Your task to perform on an android device: Open Android settings Image 0: 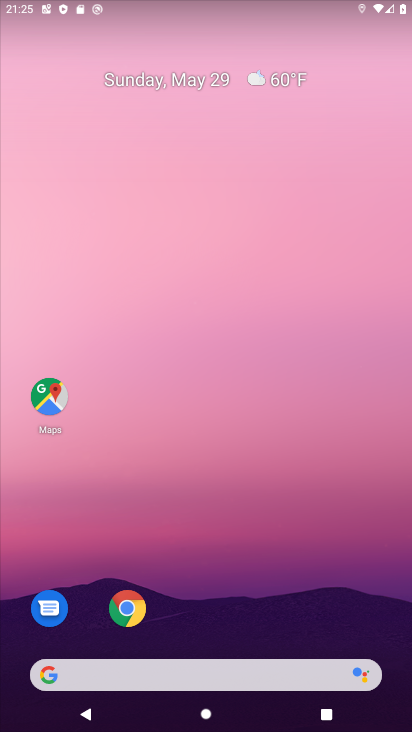
Step 0: click (362, 238)
Your task to perform on an android device: Open Android settings Image 1: 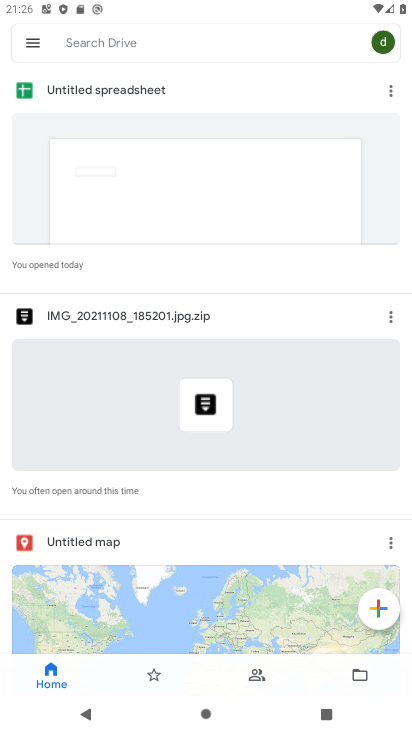
Step 1: press home button
Your task to perform on an android device: Open Android settings Image 2: 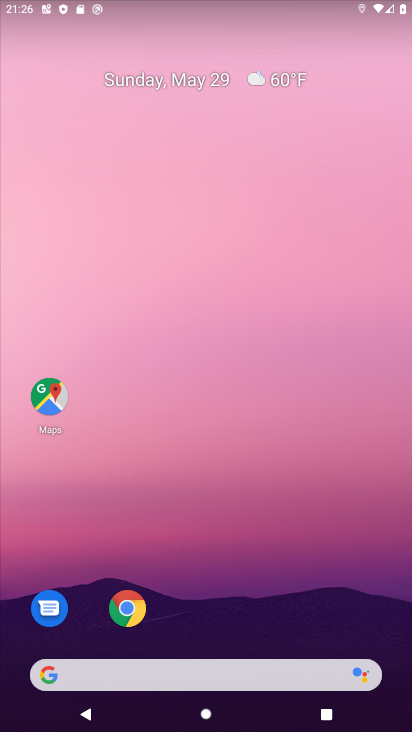
Step 2: drag from (379, 605) to (371, 223)
Your task to perform on an android device: Open Android settings Image 3: 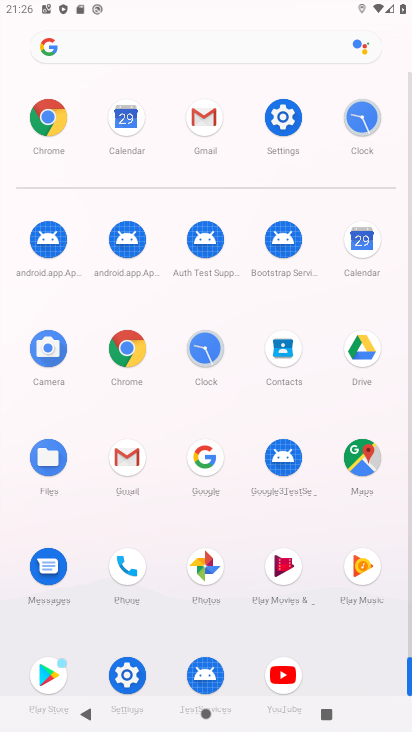
Step 3: click (283, 131)
Your task to perform on an android device: Open Android settings Image 4: 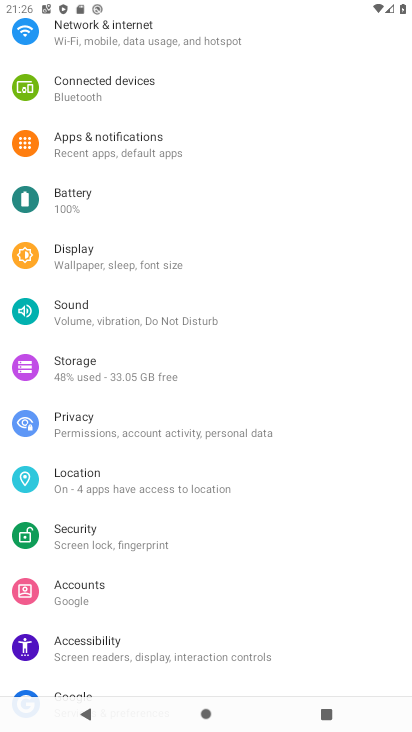
Step 4: drag from (316, 407) to (326, 281)
Your task to perform on an android device: Open Android settings Image 5: 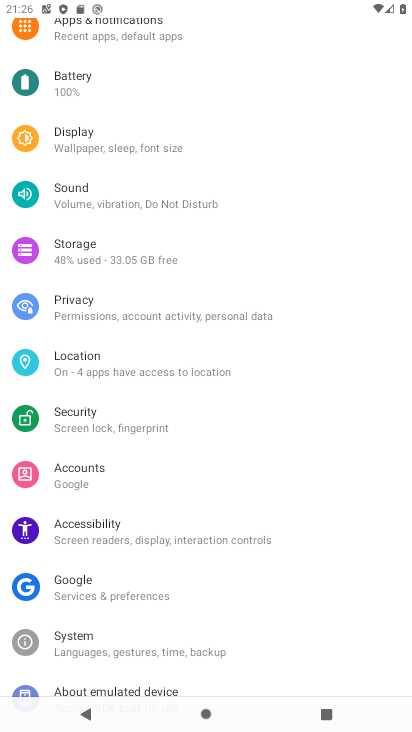
Step 5: drag from (333, 490) to (344, 321)
Your task to perform on an android device: Open Android settings Image 6: 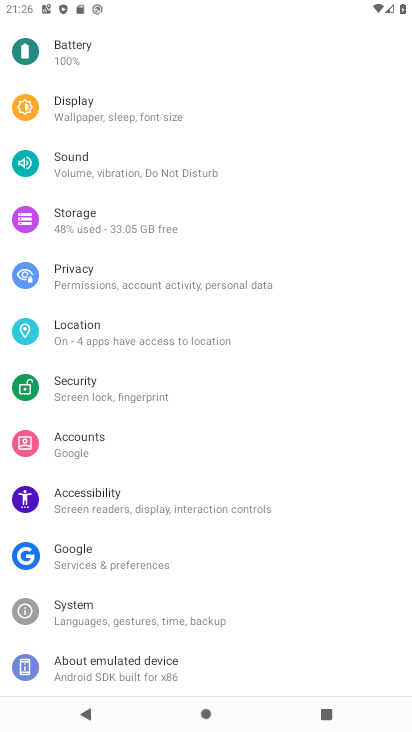
Step 6: click (222, 630)
Your task to perform on an android device: Open Android settings Image 7: 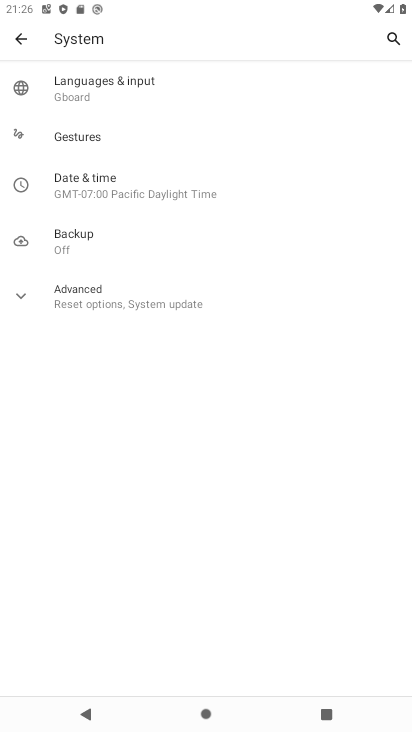
Step 7: click (189, 302)
Your task to perform on an android device: Open Android settings Image 8: 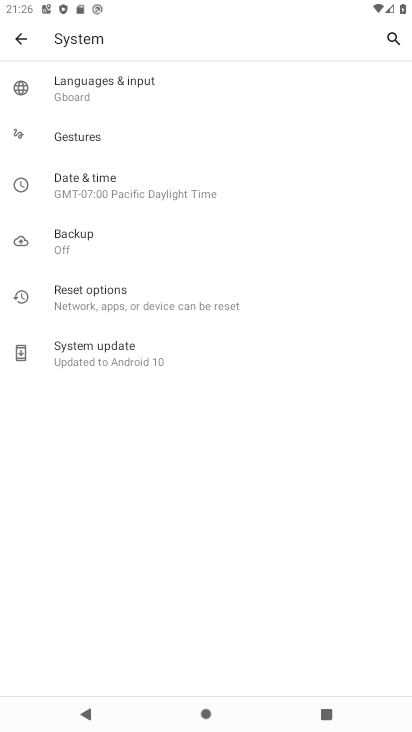
Step 8: task complete